Your task to perform on an android device: Open notification settings Image 0: 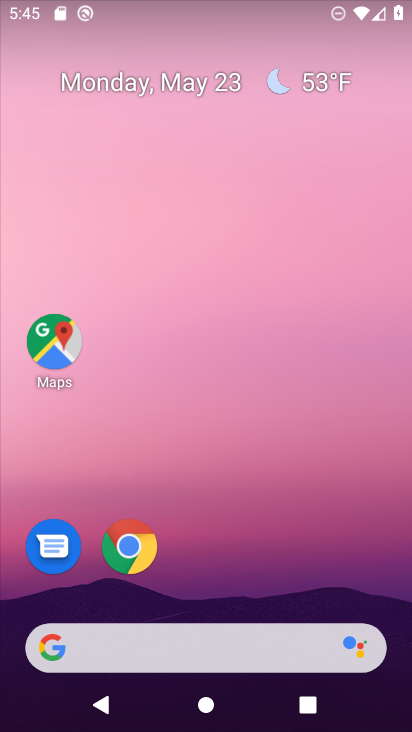
Step 0: drag from (267, 561) to (242, 192)
Your task to perform on an android device: Open notification settings Image 1: 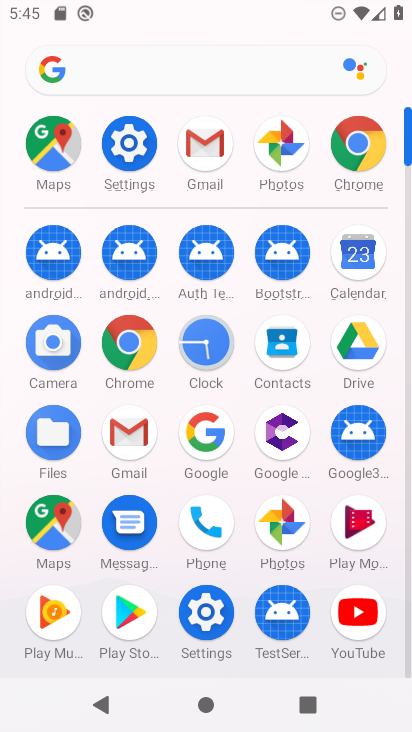
Step 1: click (201, 617)
Your task to perform on an android device: Open notification settings Image 2: 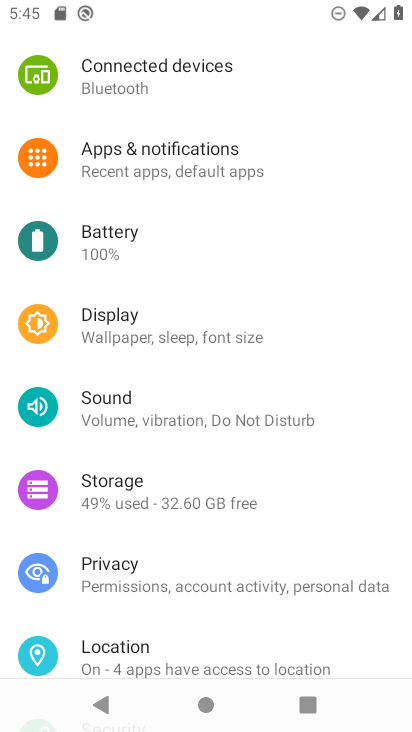
Step 2: click (164, 162)
Your task to perform on an android device: Open notification settings Image 3: 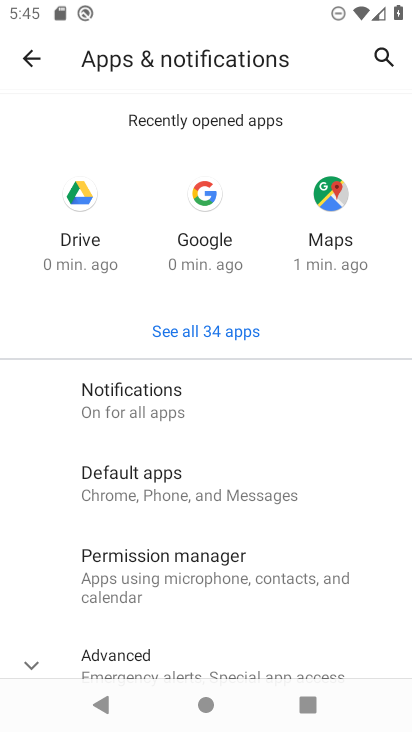
Step 3: task complete